Your task to perform on an android device: Open notification settings Image 0: 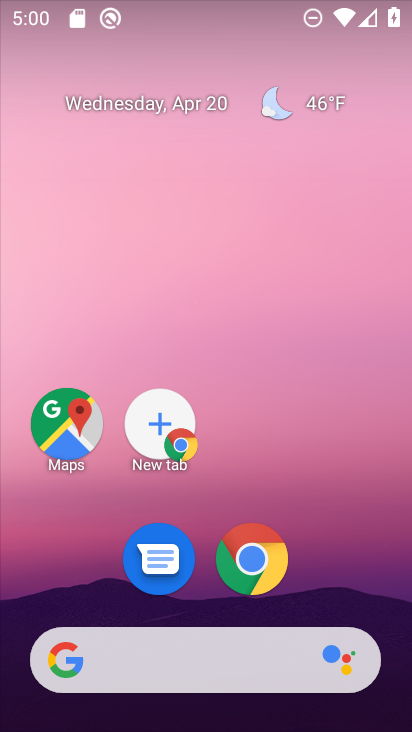
Step 0: drag from (309, 590) to (282, 233)
Your task to perform on an android device: Open notification settings Image 1: 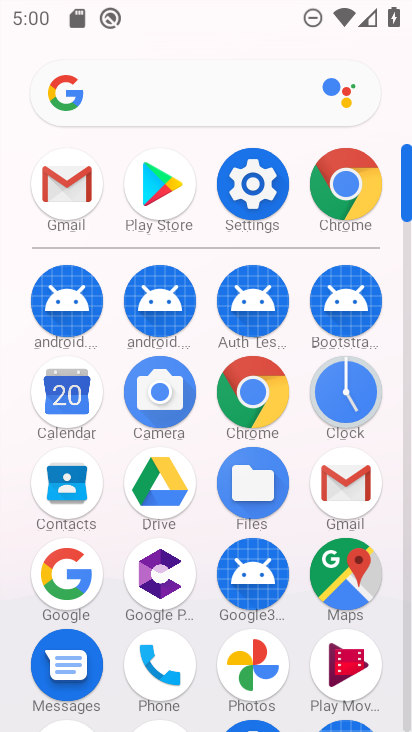
Step 1: click (248, 182)
Your task to perform on an android device: Open notification settings Image 2: 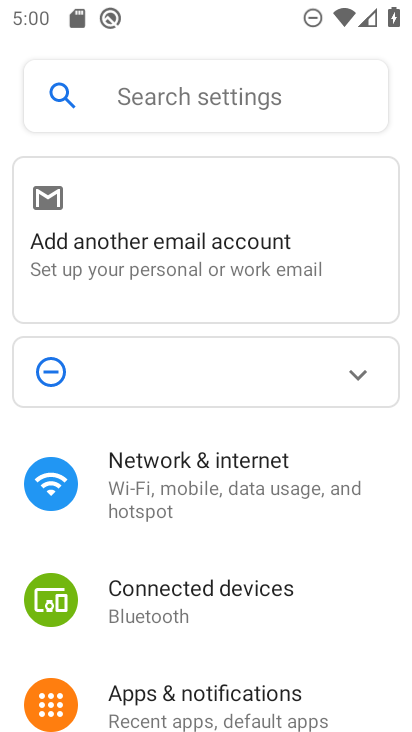
Step 2: click (217, 707)
Your task to perform on an android device: Open notification settings Image 3: 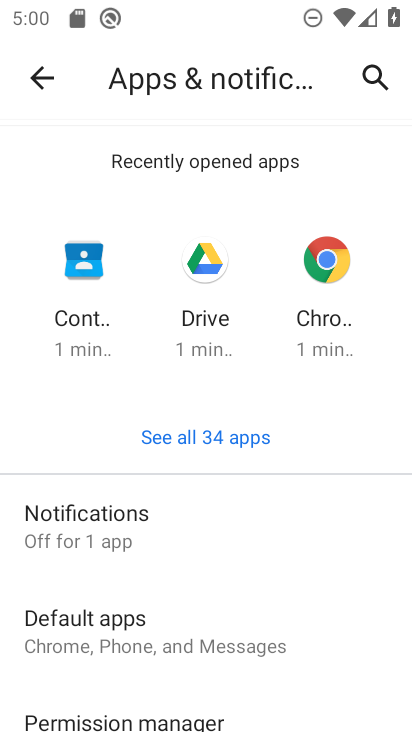
Step 3: task complete